Your task to perform on an android device: change the clock style Image 0: 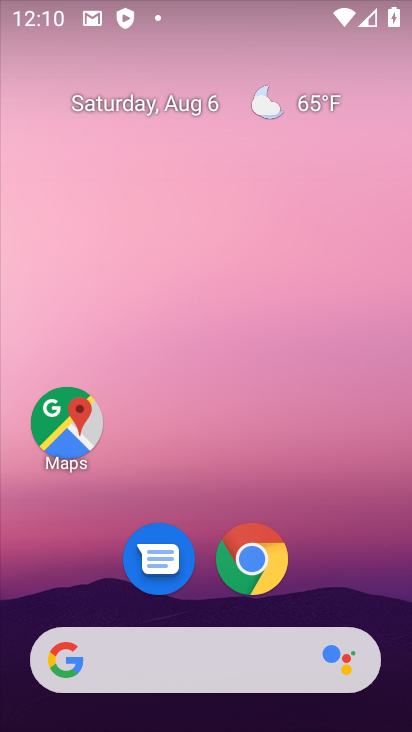
Step 0: drag from (241, 470) to (332, 84)
Your task to perform on an android device: change the clock style Image 1: 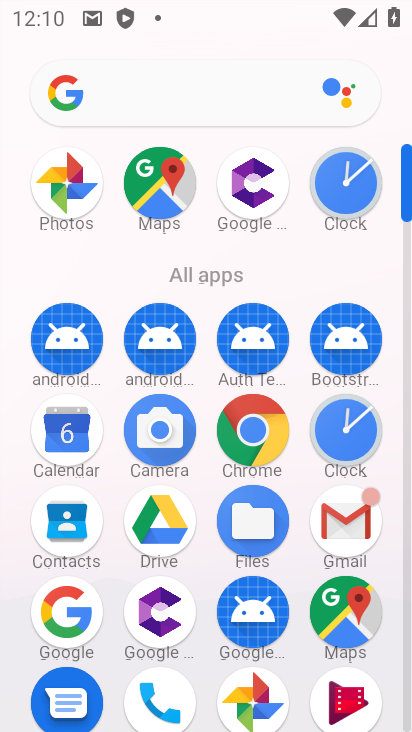
Step 1: click (324, 171)
Your task to perform on an android device: change the clock style Image 2: 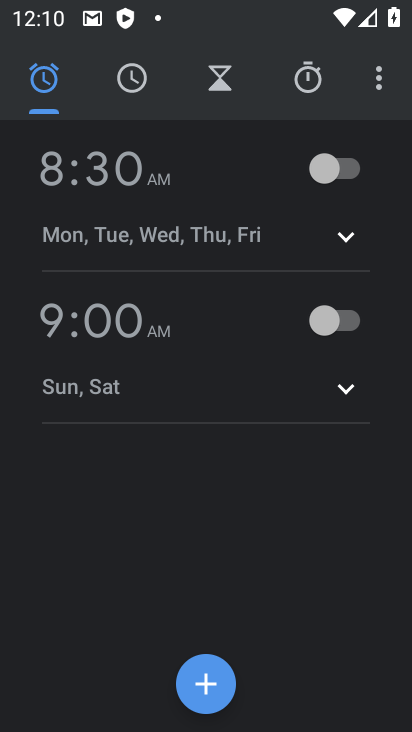
Step 2: click (376, 74)
Your task to perform on an android device: change the clock style Image 3: 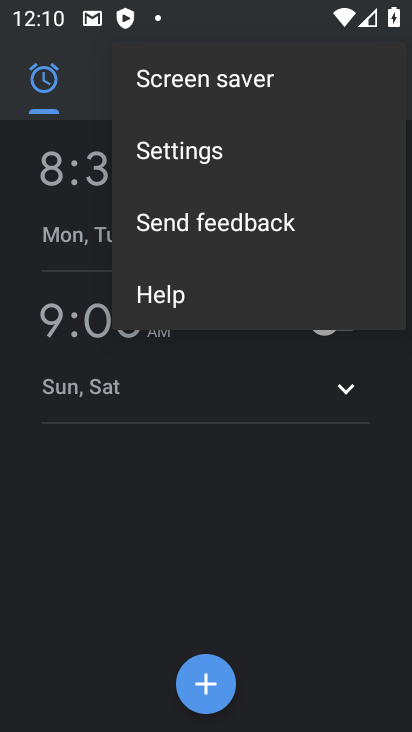
Step 3: click (214, 160)
Your task to perform on an android device: change the clock style Image 4: 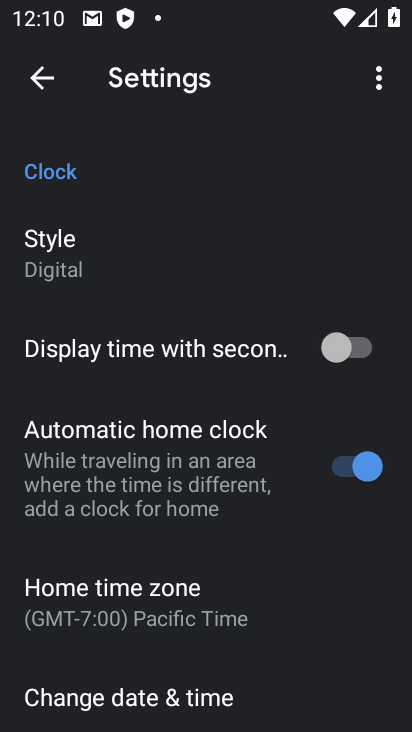
Step 4: click (82, 256)
Your task to perform on an android device: change the clock style Image 5: 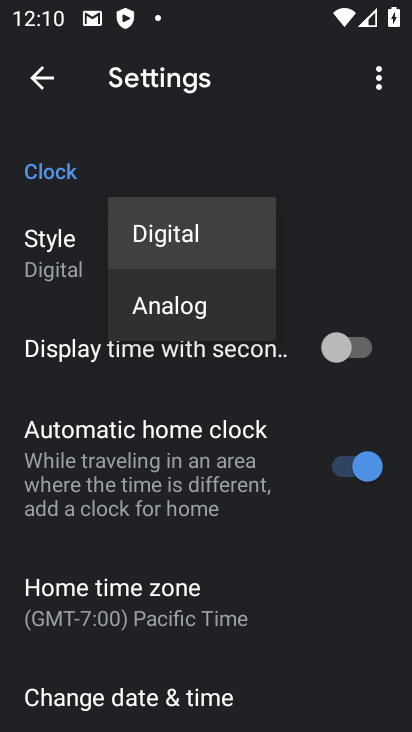
Step 5: click (171, 313)
Your task to perform on an android device: change the clock style Image 6: 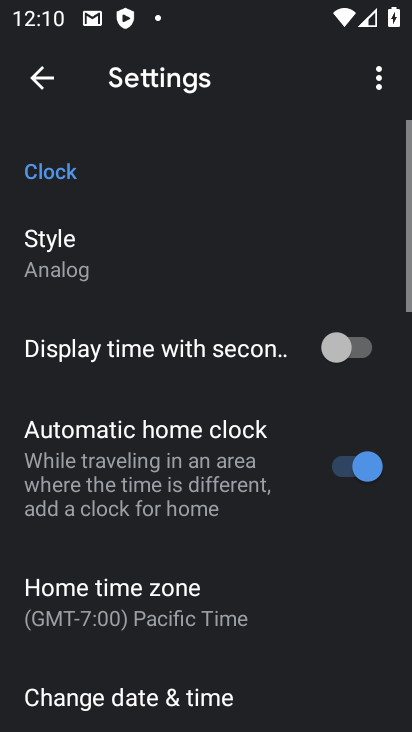
Step 6: task complete